Your task to perform on an android device: toggle data saver in the chrome app Image 0: 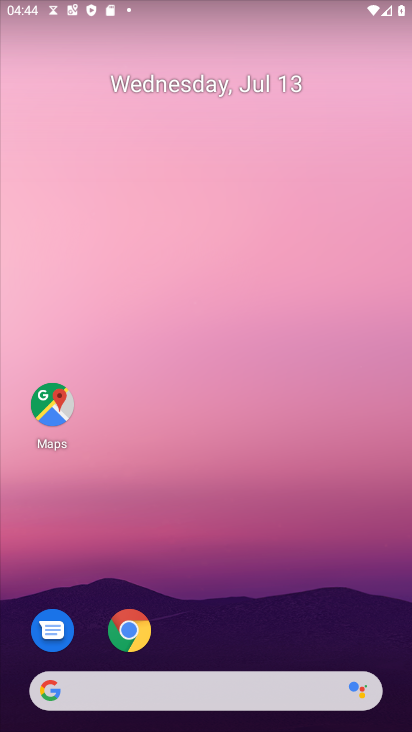
Step 0: drag from (345, 687) to (300, 131)
Your task to perform on an android device: toggle data saver in the chrome app Image 1: 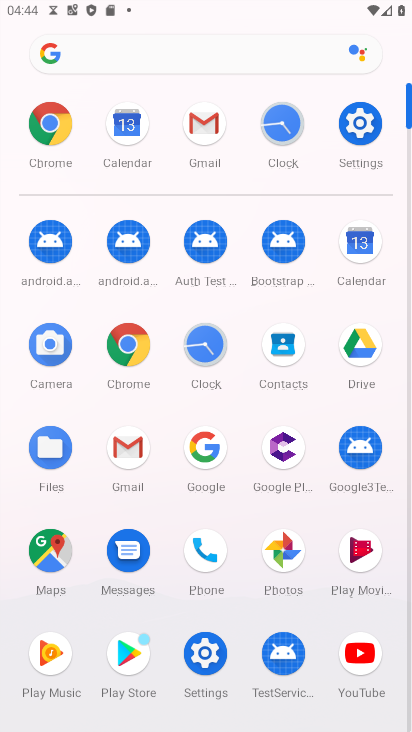
Step 1: click (127, 353)
Your task to perform on an android device: toggle data saver in the chrome app Image 2: 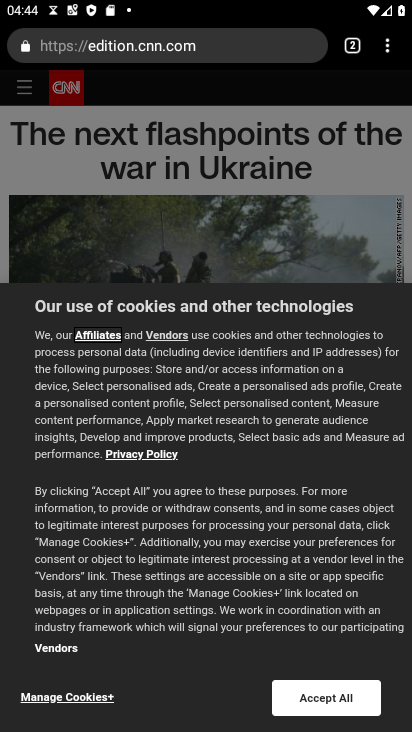
Step 2: drag from (380, 41) to (227, 511)
Your task to perform on an android device: toggle data saver in the chrome app Image 3: 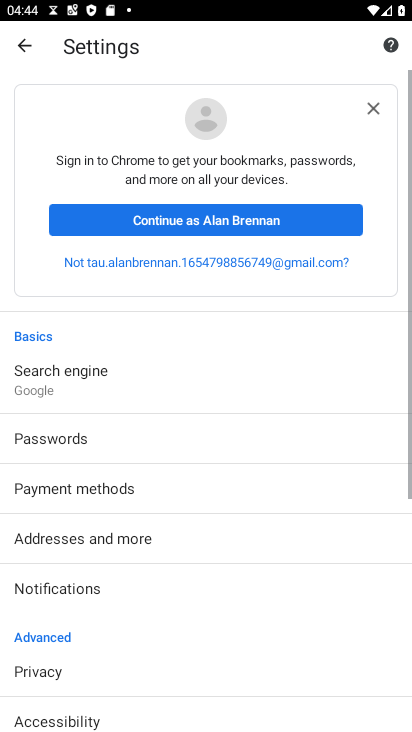
Step 3: drag from (199, 613) to (227, 220)
Your task to perform on an android device: toggle data saver in the chrome app Image 4: 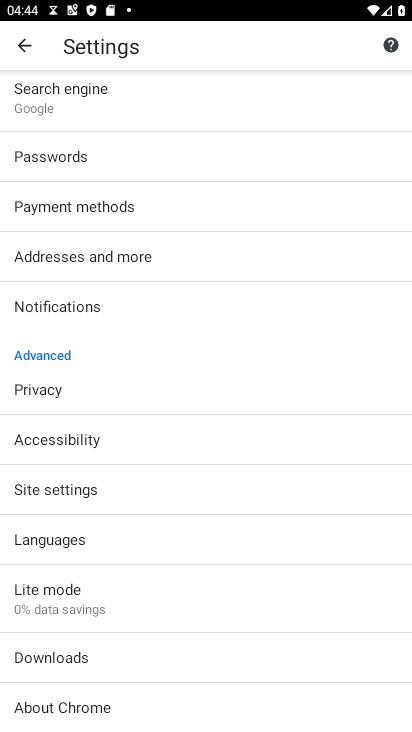
Step 4: click (89, 597)
Your task to perform on an android device: toggle data saver in the chrome app Image 5: 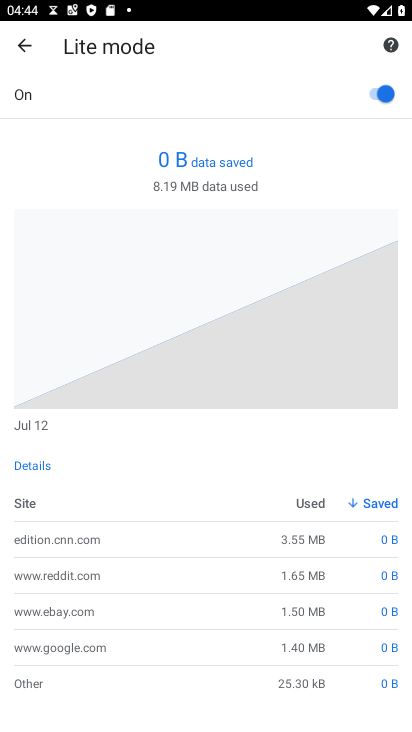
Step 5: click (377, 88)
Your task to perform on an android device: toggle data saver in the chrome app Image 6: 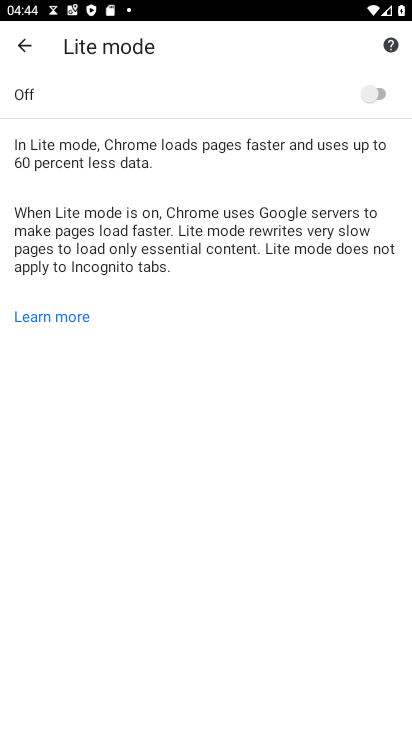
Step 6: task complete